Your task to perform on an android device: Go to internet settings Image 0: 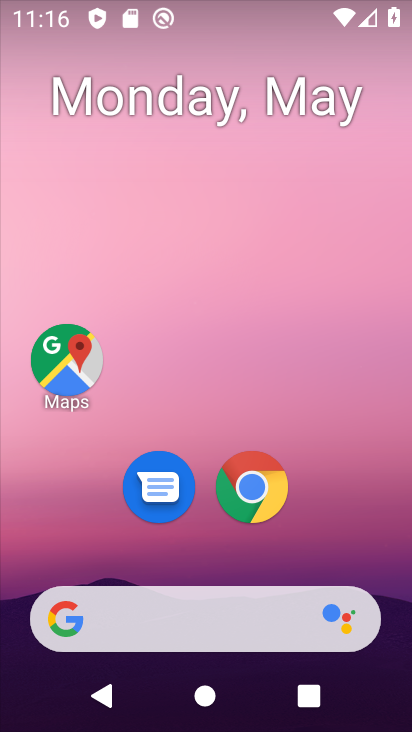
Step 0: drag from (197, 479) to (268, 18)
Your task to perform on an android device: Go to internet settings Image 1: 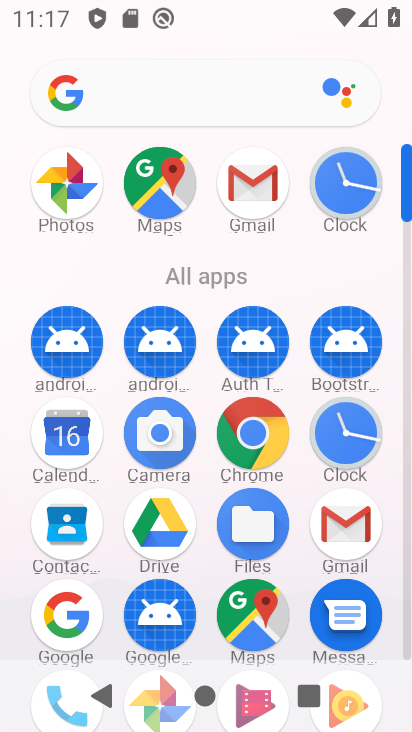
Step 1: drag from (212, 605) to (328, 119)
Your task to perform on an android device: Go to internet settings Image 2: 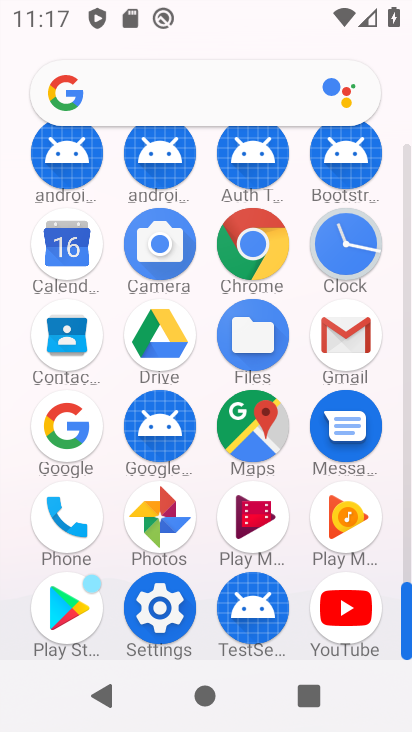
Step 2: click (162, 625)
Your task to perform on an android device: Go to internet settings Image 3: 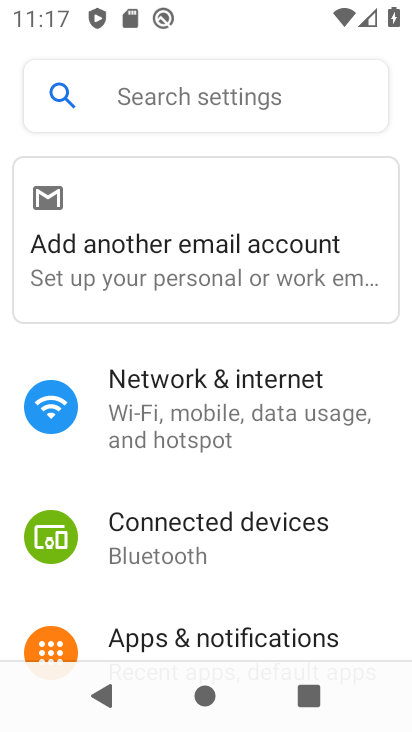
Step 3: click (199, 390)
Your task to perform on an android device: Go to internet settings Image 4: 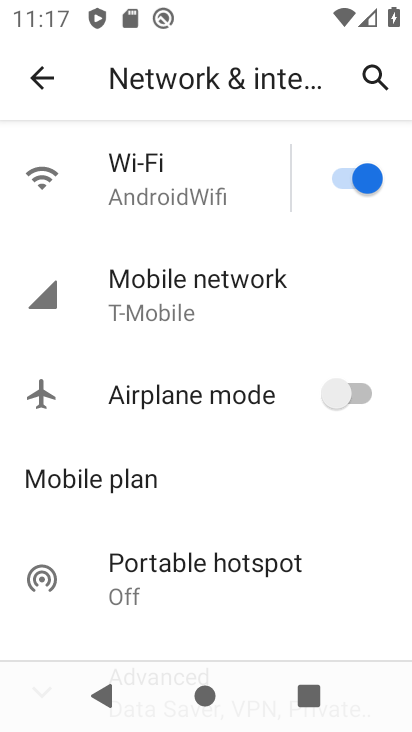
Step 4: task complete